Your task to perform on an android device: Search for Italian restaurants on Maps Image 0: 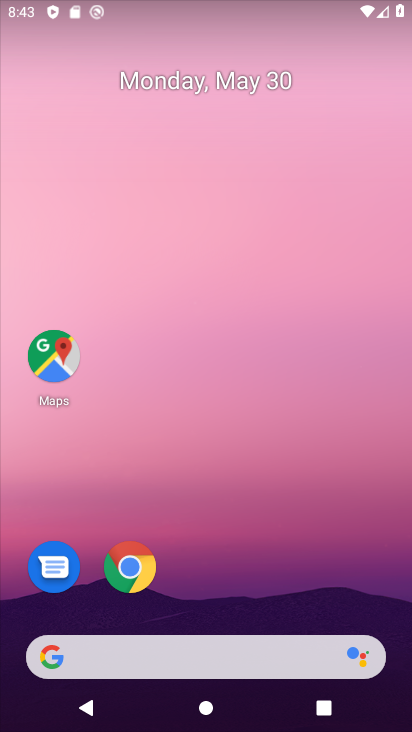
Step 0: drag from (240, 599) to (215, 26)
Your task to perform on an android device: Search for Italian restaurants on Maps Image 1: 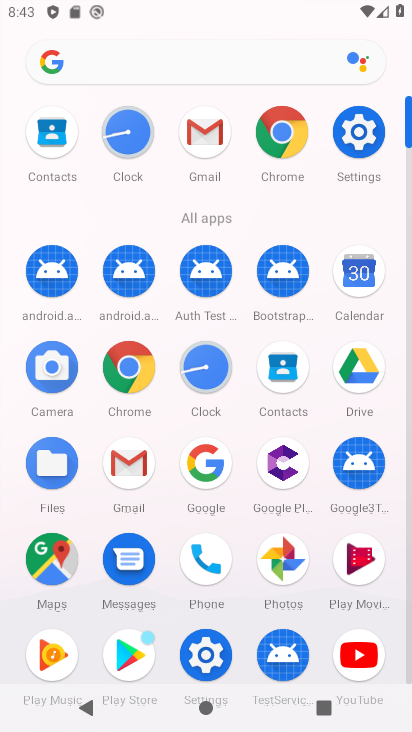
Step 1: click (57, 557)
Your task to perform on an android device: Search for Italian restaurants on Maps Image 2: 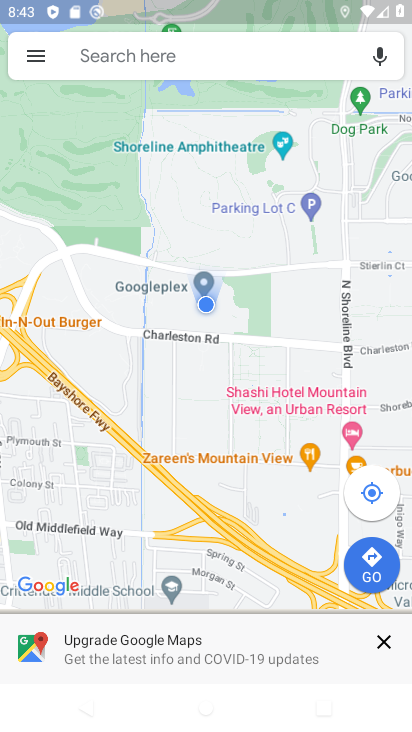
Step 2: click (176, 41)
Your task to perform on an android device: Search for Italian restaurants on Maps Image 3: 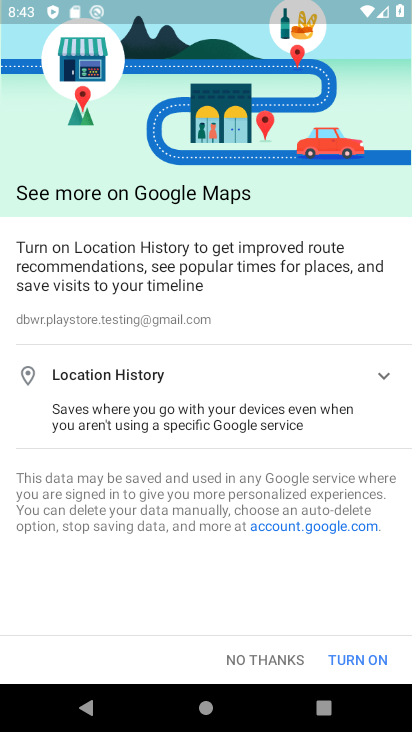
Step 3: click (281, 662)
Your task to perform on an android device: Search for Italian restaurants on Maps Image 4: 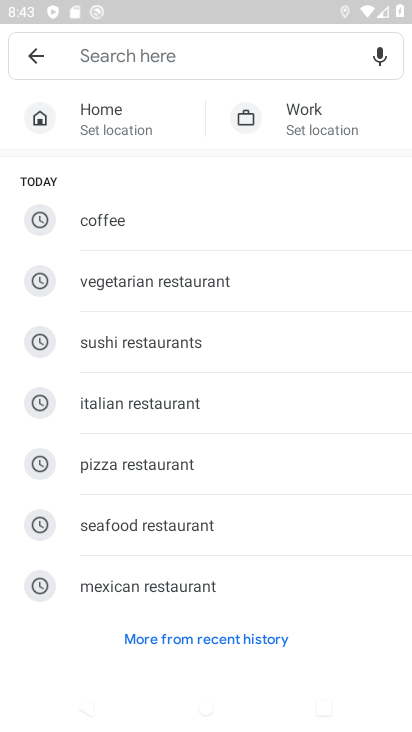
Step 4: click (193, 404)
Your task to perform on an android device: Search for Italian restaurants on Maps Image 5: 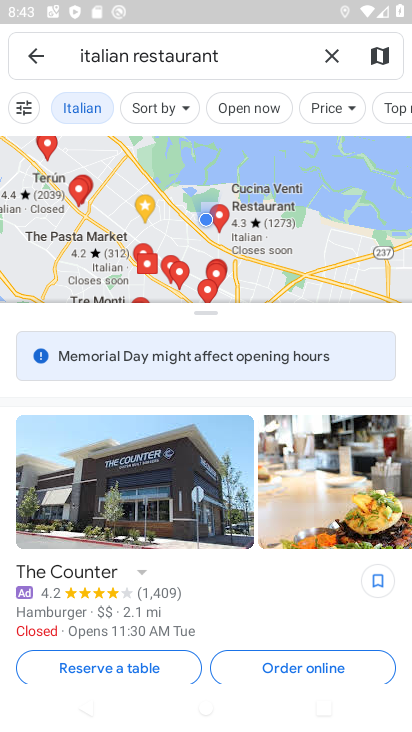
Step 5: task complete